Your task to perform on an android device: Open Google Chrome and click the shortcut for Amazon.com Image 0: 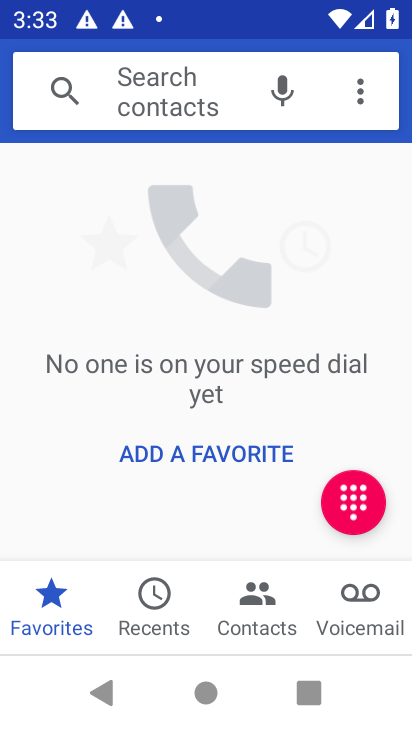
Step 0: press home button
Your task to perform on an android device: Open Google Chrome and click the shortcut for Amazon.com Image 1: 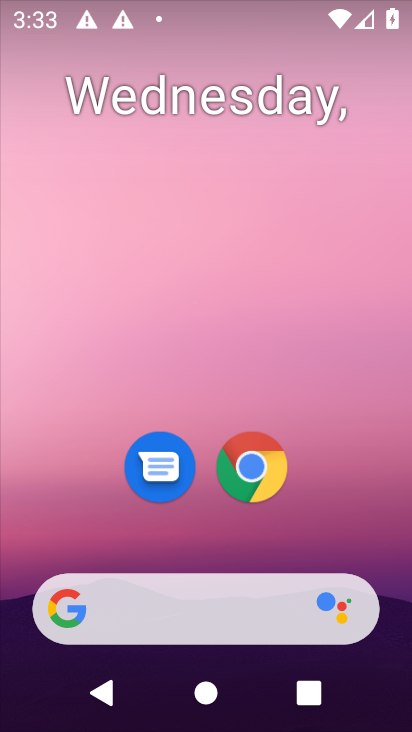
Step 1: click (256, 467)
Your task to perform on an android device: Open Google Chrome and click the shortcut for Amazon.com Image 2: 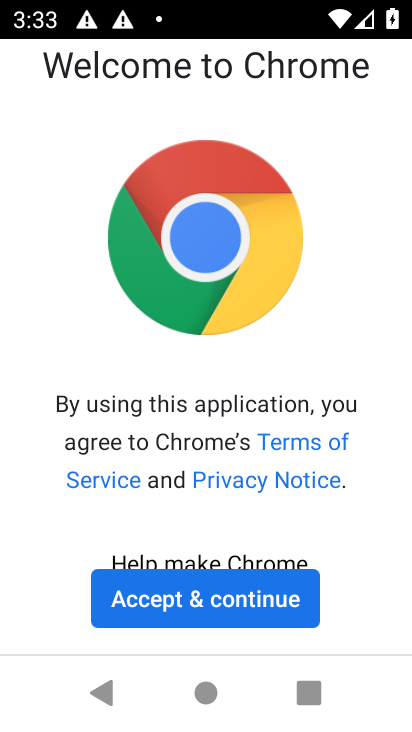
Step 2: click (198, 584)
Your task to perform on an android device: Open Google Chrome and click the shortcut for Amazon.com Image 3: 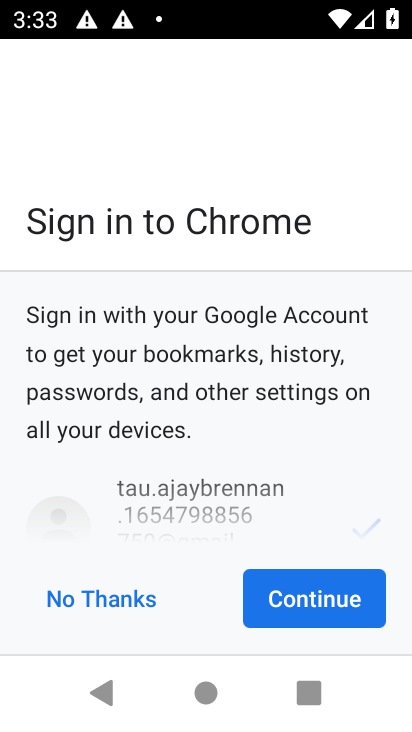
Step 3: click (297, 606)
Your task to perform on an android device: Open Google Chrome and click the shortcut for Amazon.com Image 4: 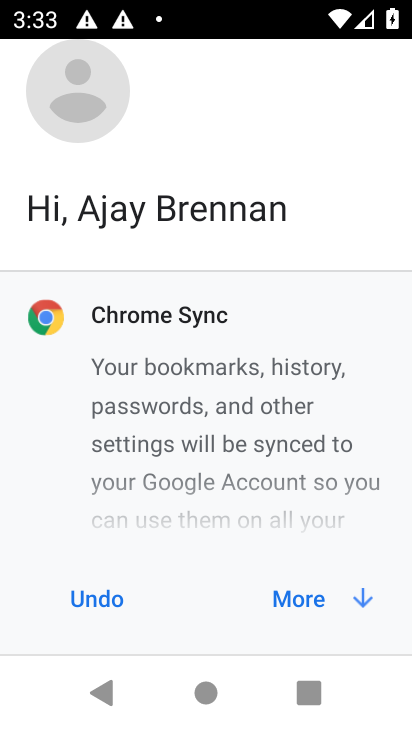
Step 4: click (302, 590)
Your task to perform on an android device: Open Google Chrome and click the shortcut for Amazon.com Image 5: 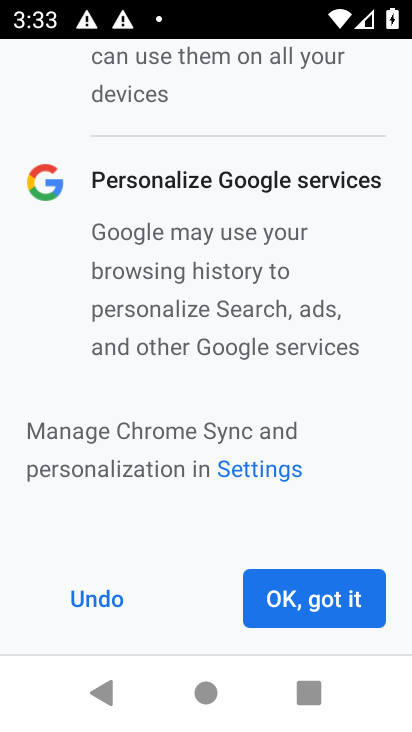
Step 5: click (302, 590)
Your task to perform on an android device: Open Google Chrome and click the shortcut for Amazon.com Image 6: 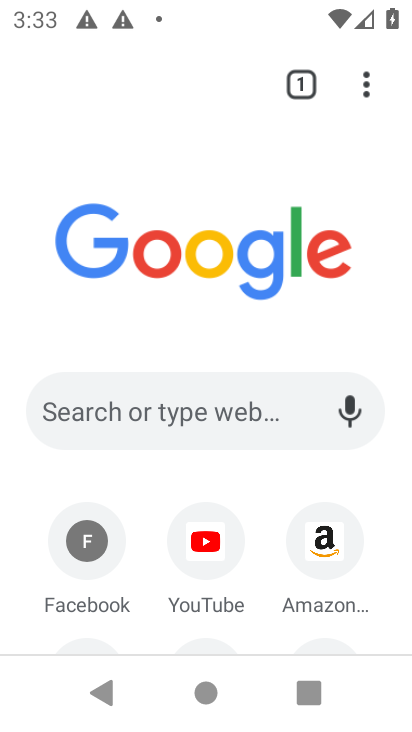
Step 6: click (317, 552)
Your task to perform on an android device: Open Google Chrome and click the shortcut for Amazon.com Image 7: 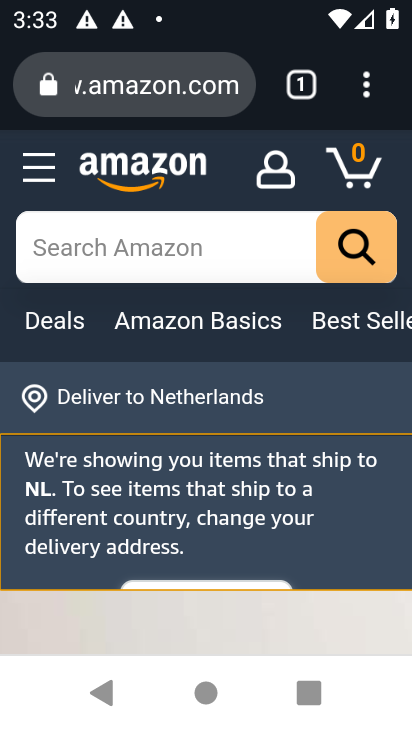
Step 7: task complete